Your task to perform on an android device: change timer sound Image 0: 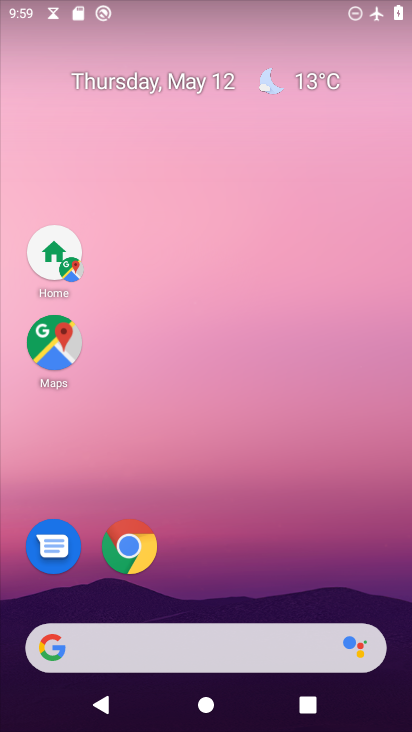
Step 0: drag from (175, 644) to (304, 154)
Your task to perform on an android device: change timer sound Image 1: 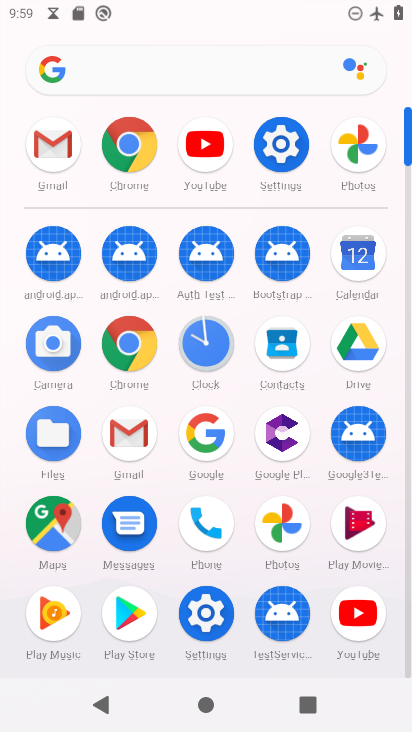
Step 1: click (205, 351)
Your task to perform on an android device: change timer sound Image 2: 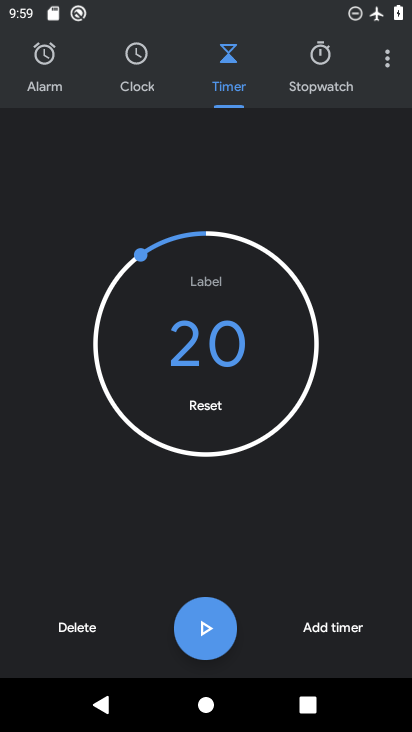
Step 2: click (386, 66)
Your task to perform on an android device: change timer sound Image 3: 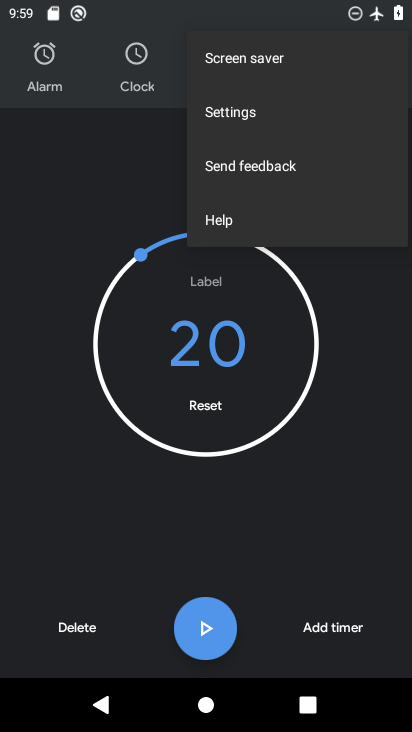
Step 3: click (232, 117)
Your task to perform on an android device: change timer sound Image 4: 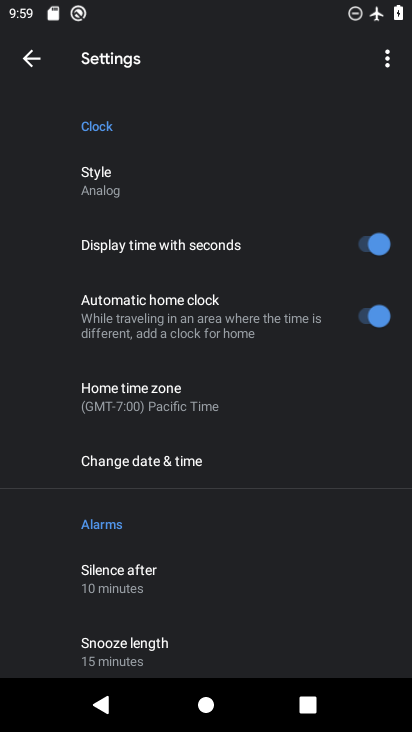
Step 4: drag from (184, 563) to (344, 150)
Your task to perform on an android device: change timer sound Image 5: 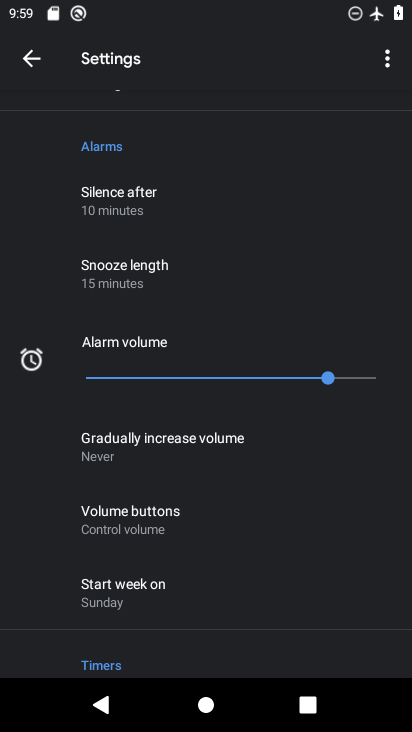
Step 5: drag from (154, 548) to (328, 157)
Your task to perform on an android device: change timer sound Image 6: 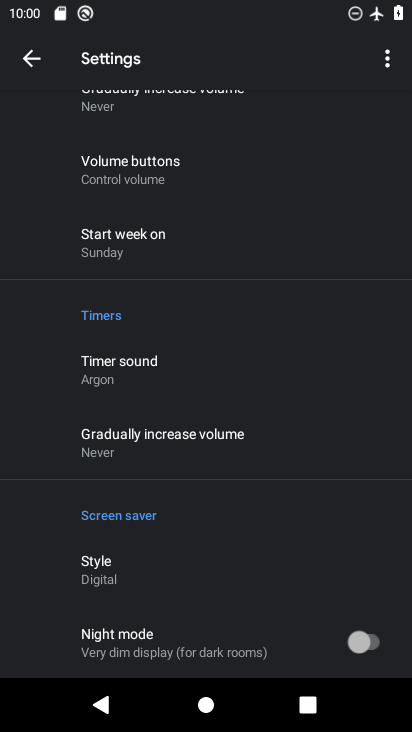
Step 6: click (138, 370)
Your task to perform on an android device: change timer sound Image 7: 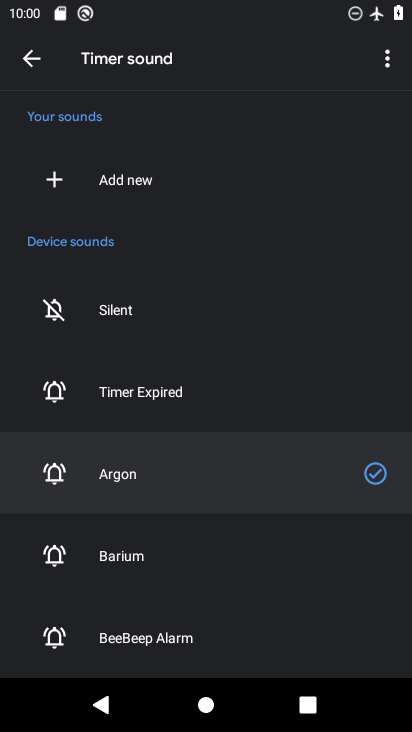
Step 7: click (133, 313)
Your task to perform on an android device: change timer sound Image 8: 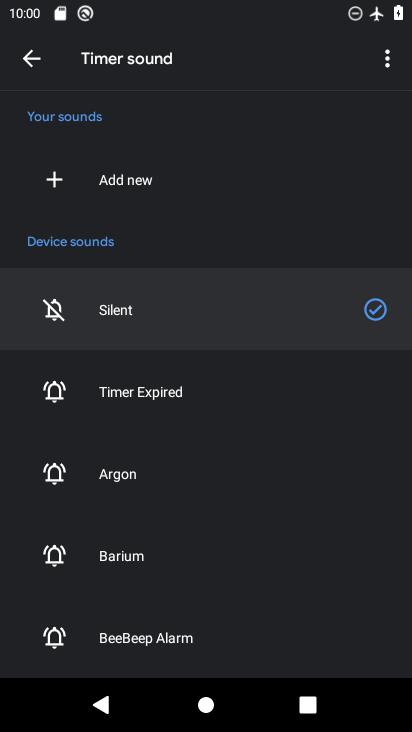
Step 8: task complete